Your task to perform on an android device: turn off location Image 0: 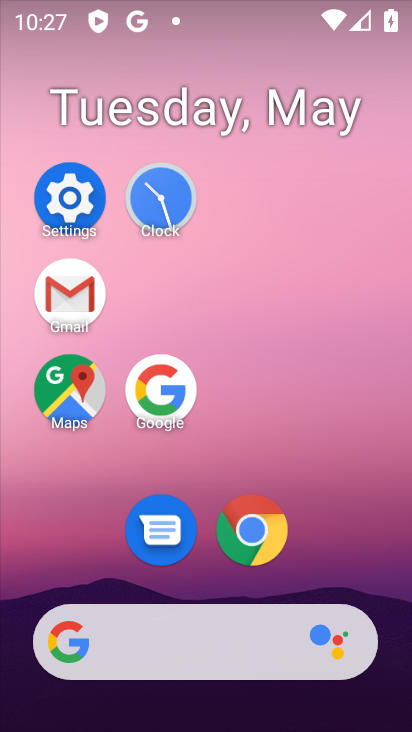
Step 0: click (61, 198)
Your task to perform on an android device: turn off location Image 1: 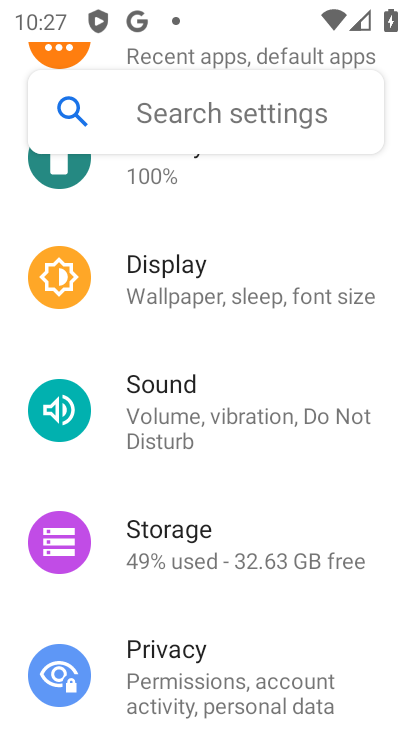
Step 1: drag from (244, 642) to (227, 290)
Your task to perform on an android device: turn off location Image 2: 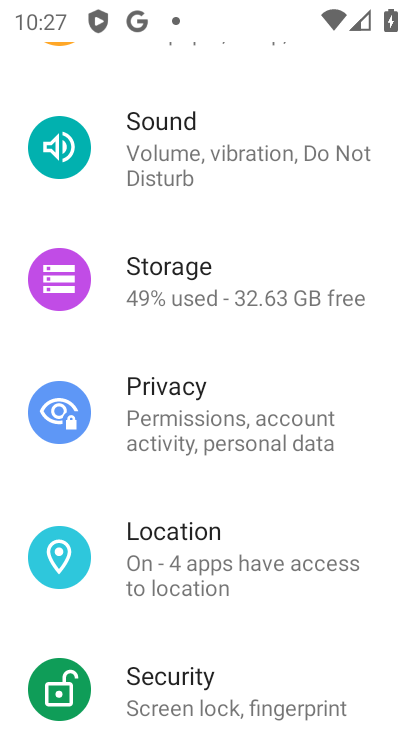
Step 2: click (238, 561)
Your task to perform on an android device: turn off location Image 3: 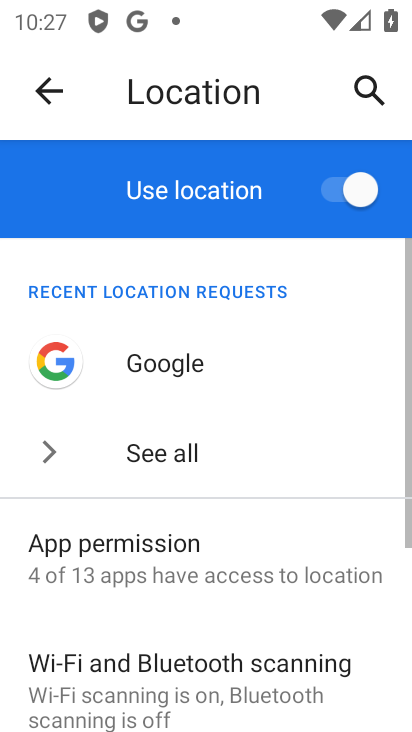
Step 3: click (359, 190)
Your task to perform on an android device: turn off location Image 4: 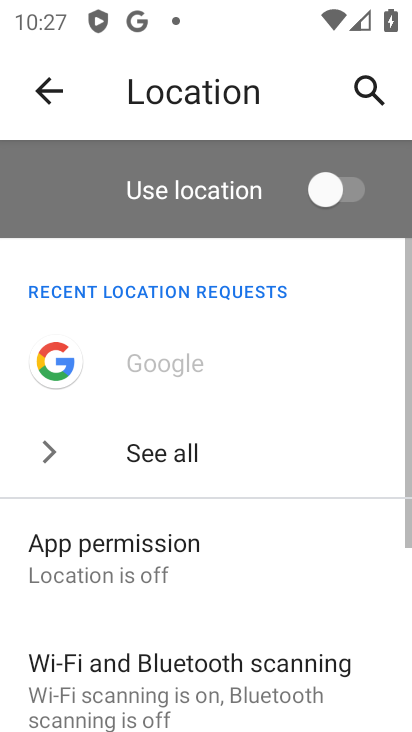
Step 4: task complete